Your task to perform on an android device: Open Wikipedia Image 0: 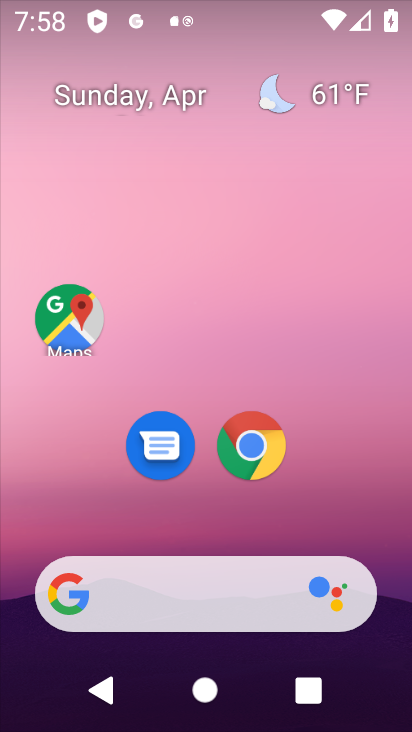
Step 0: click (201, 580)
Your task to perform on an android device: Open Wikipedia Image 1: 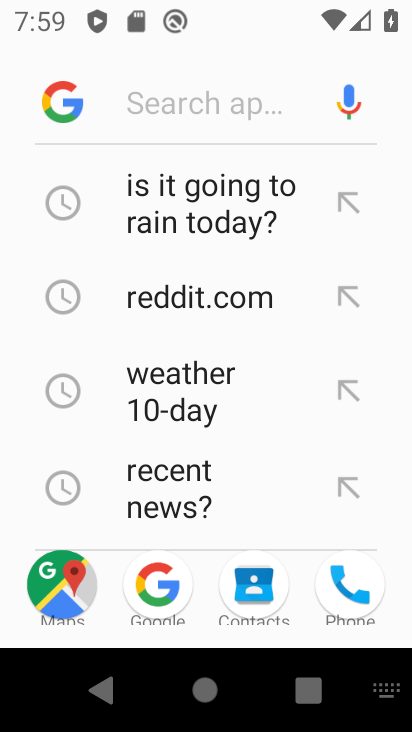
Step 1: type "Wikipedia"
Your task to perform on an android device: Open Wikipedia Image 2: 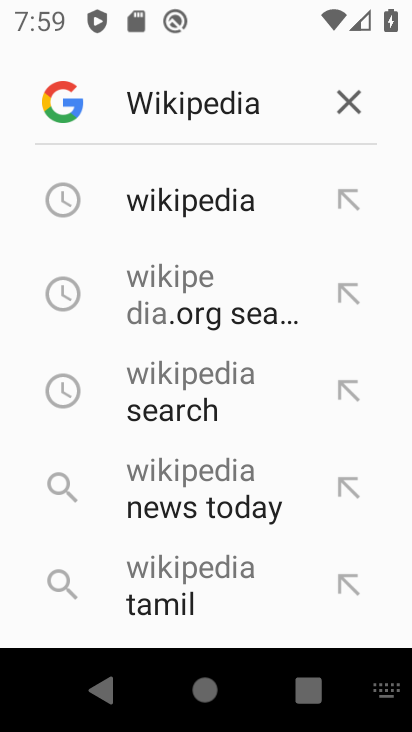
Step 2: click (255, 201)
Your task to perform on an android device: Open Wikipedia Image 3: 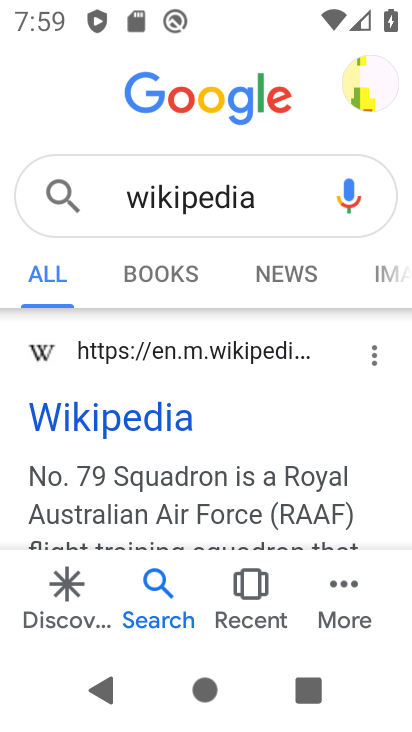
Step 3: click (85, 412)
Your task to perform on an android device: Open Wikipedia Image 4: 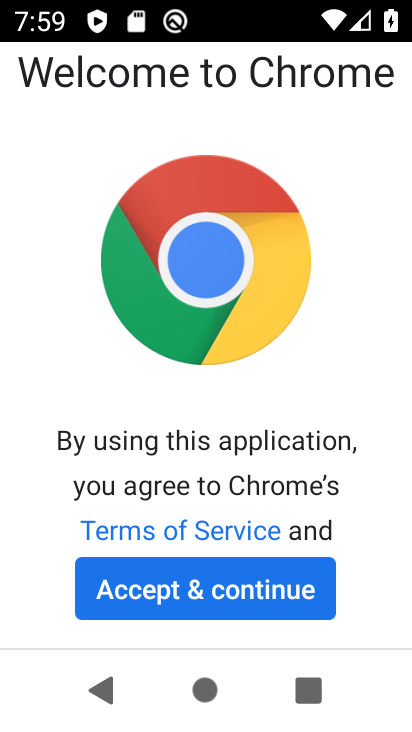
Step 4: click (237, 574)
Your task to perform on an android device: Open Wikipedia Image 5: 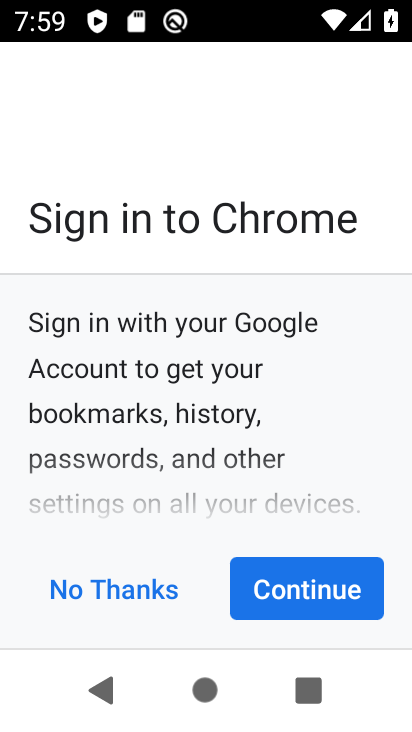
Step 5: click (273, 564)
Your task to perform on an android device: Open Wikipedia Image 6: 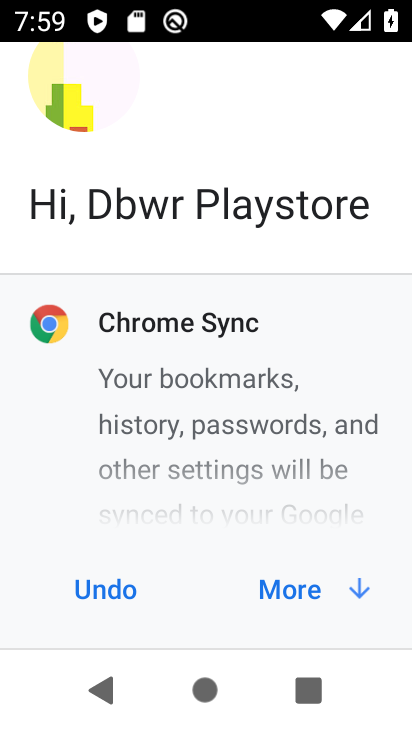
Step 6: click (294, 577)
Your task to perform on an android device: Open Wikipedia Image 7: 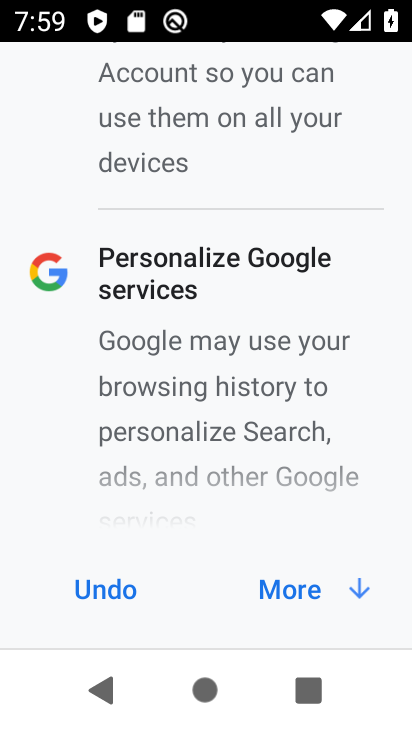
Step 7: click (275, 584)
Your task to perform on an android device: Open Wikipedia Image 8: 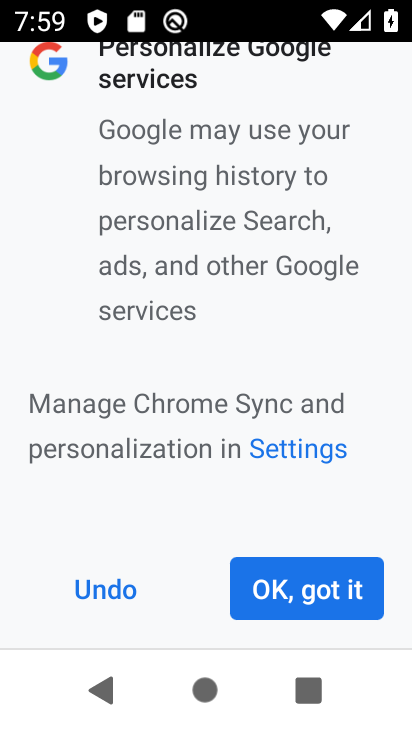
Step 8: click (275, 584)
Your task to perform on an android device: Open Wikipedia Image 9: 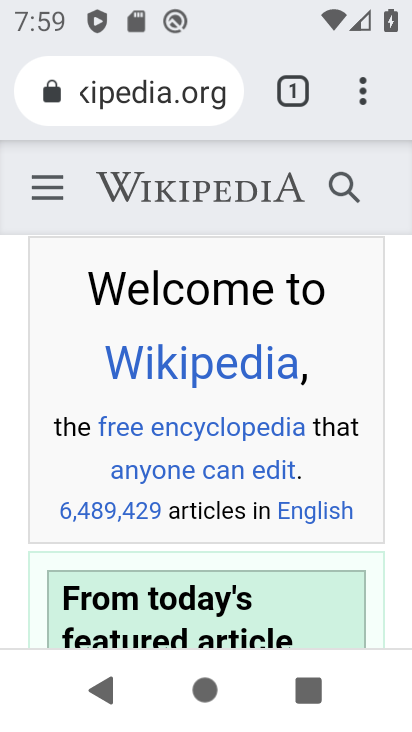
Step 9: task complete